Your task to perform on an android device: Open accessibility settings Image 0: 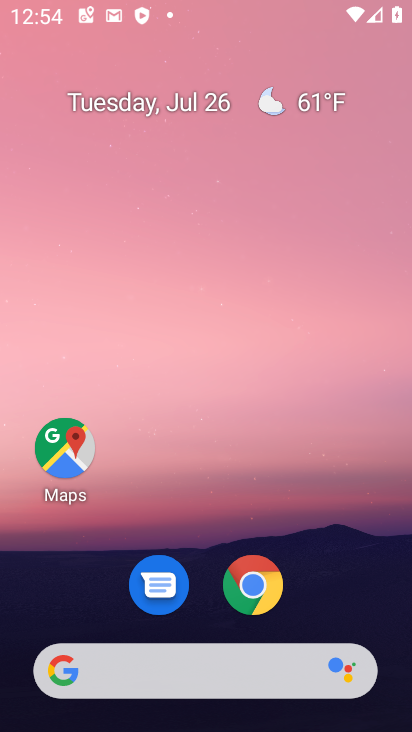
Step 0: press home button
Your task to perform on an android device: Open accessibility settings Image 1: 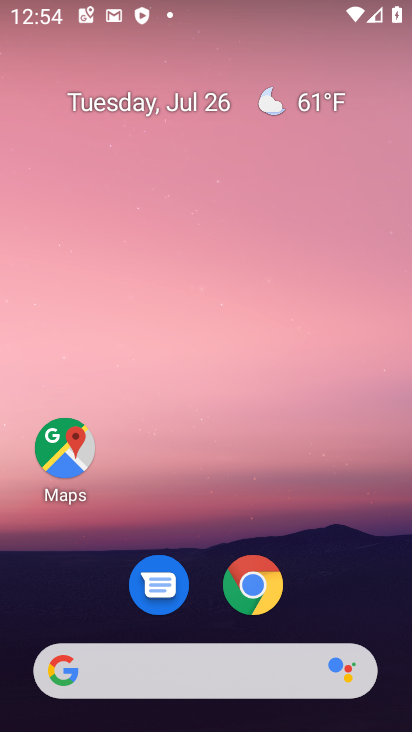
Step 1: drag from (190, 662) to (303, 180)
Your task to perform on an android device: Open accessibility settings Image 2: 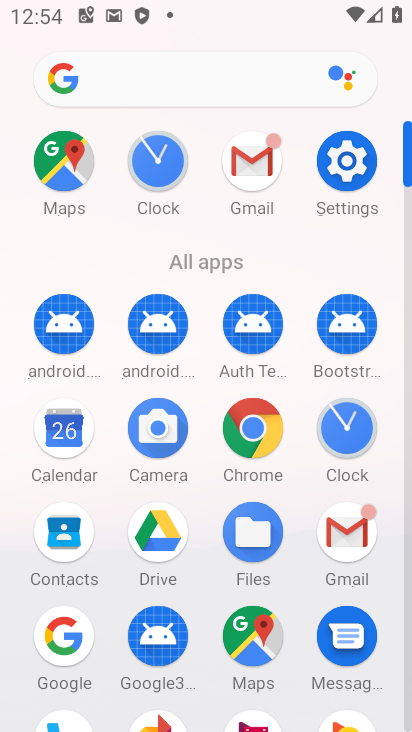
Step 2: click (346, 167)
Your task to perform on an android device: Open accessibility settings Image 3: 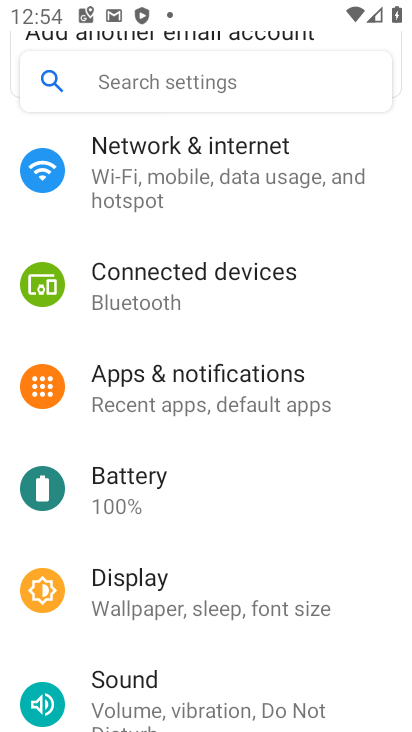
Step 3: drag from (231, 599) to (236, 134)
Your task to perform on an android device: Open accessibility settings Image 4: 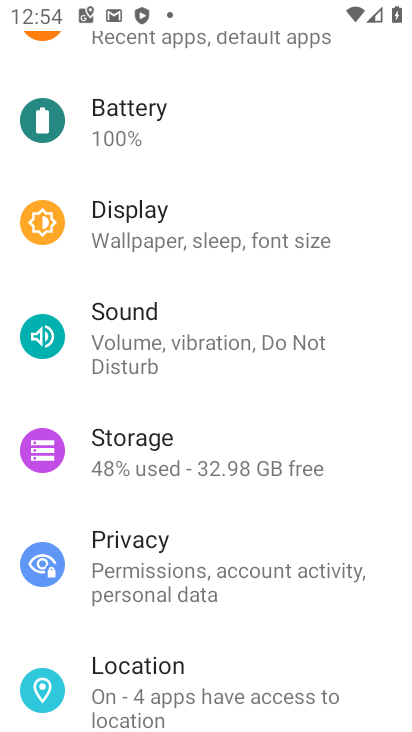
Step 4: drag from (245, 642) to (301, 213)
Your task to perform on an android device: Open accessibility settings Image 5: 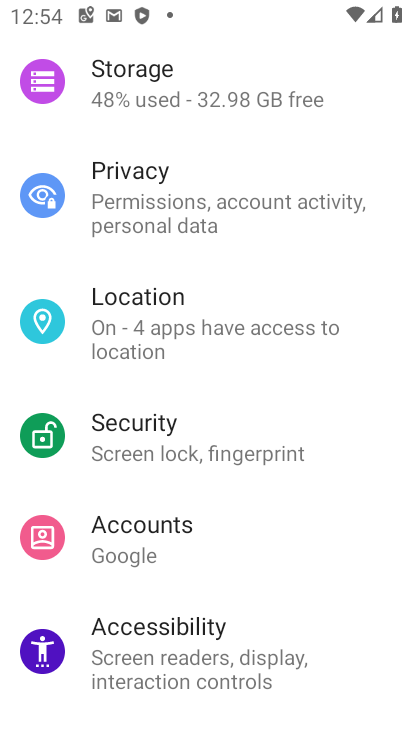
Step 5: click (201, 627)
Your task to perform on an android device: Open accessibility settings Image 6: 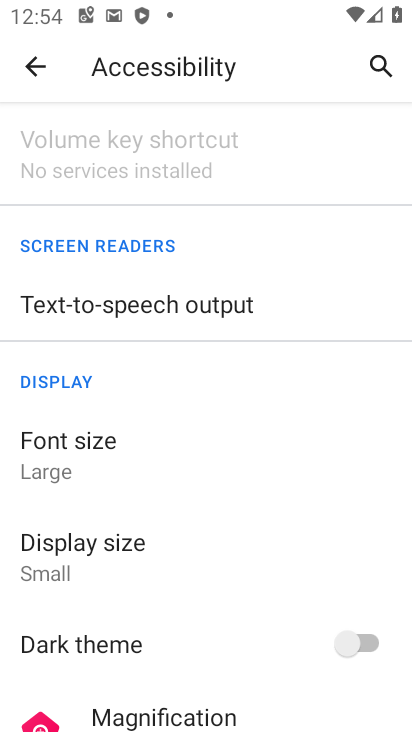
Step 6: task complete